Your task to perform on an android device: Search for "asus zenbook" on ebay, select the first entry, add it to the cart, then select checkout. Image 0: 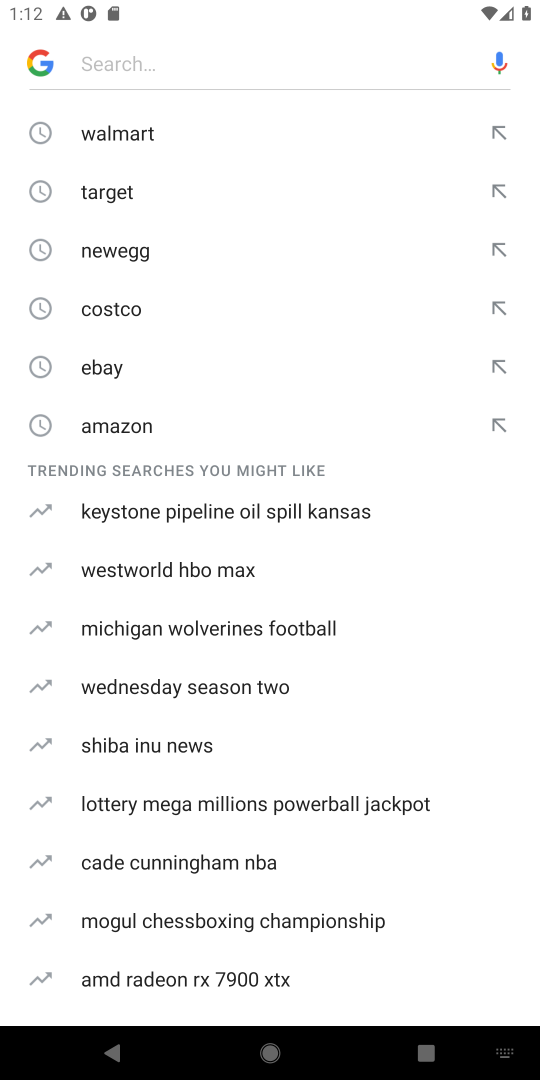
Step 0: click (71, 354)
Your task to perform on an android device: Search for "asus zenbook" on ebay, select the first entry, add it to the cart, then select checkout. Image 1: 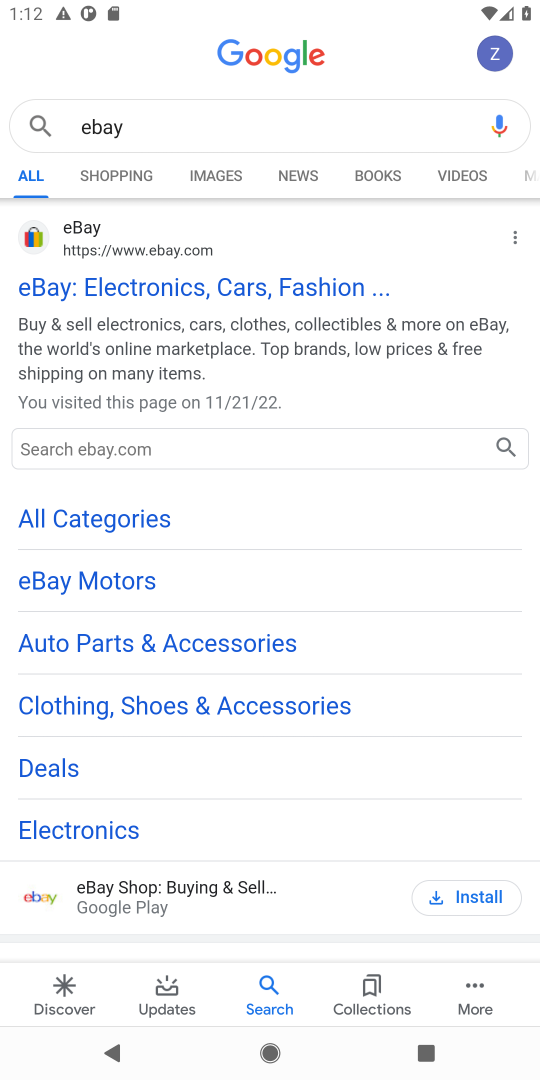
Step 1: click (112, 299)
Your task to perform on an android device: Search for "asus zenbook" on ebay, select the first entry, add it to the cart, then select checkout. Image 2: 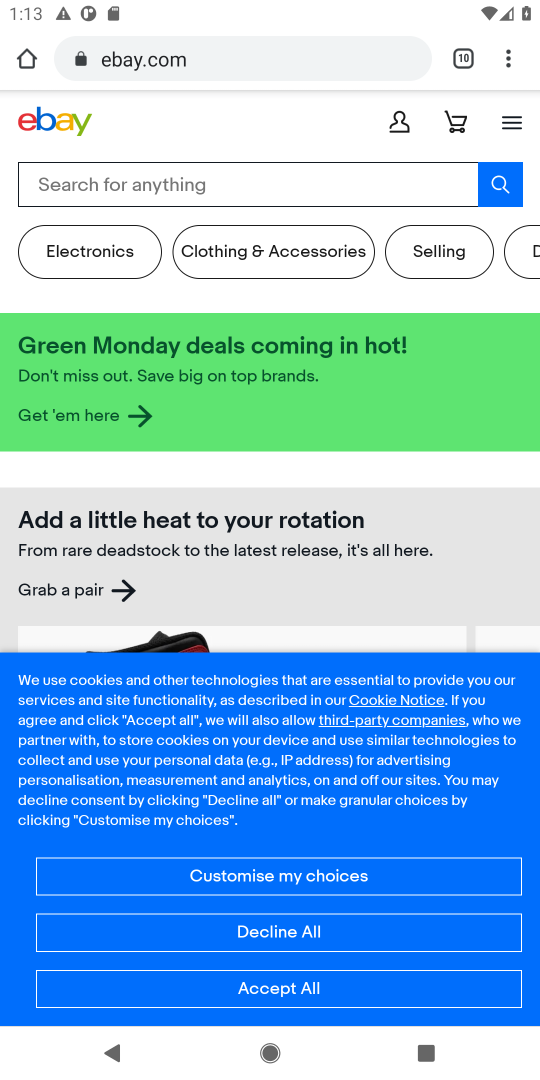
Step 2: click (266, 987)
Your task to perform on an android device: Search for "asus zenbook" on ebay, select the first entry, add it to the cart, then select checkout. Image 3: 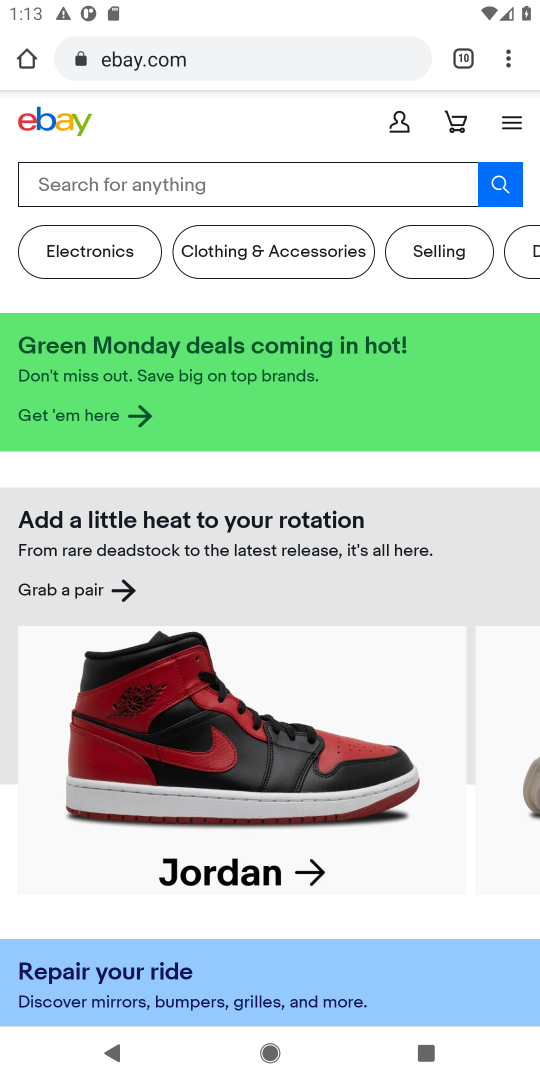
Step 3: click (298, 188)
Your task to perform on an android device: Search for "asus zenbook" on ebay, select the first entry, add it to the cart, then select checkout. Image 4: 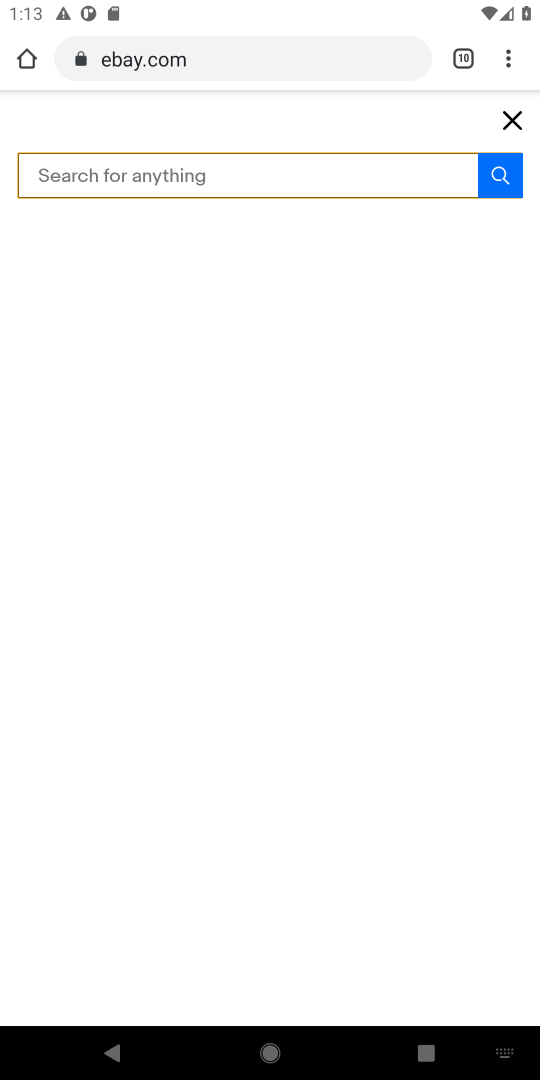
Step 4: type "asus zenbook"
Your task to perform on an android device: Search for "asus zenbook" on ebay, select the first entry, add it to the cart, then select checkout. Image 5: 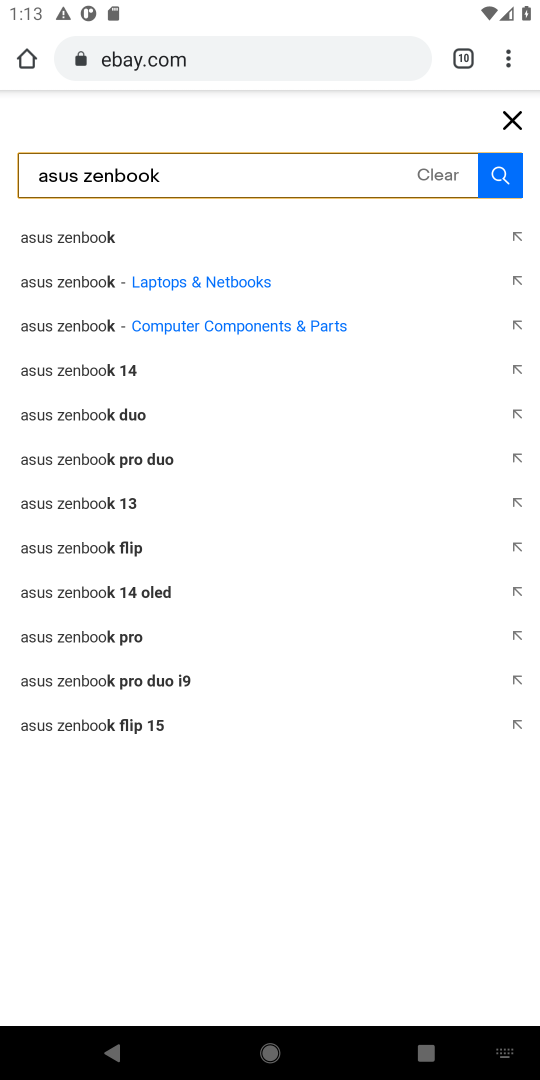
Step 5: click (109, 229)
Your task to perform on an android device: Search for "asus zenbook" on ebay, select the first entry, add it to the cart, then select checkout. Image 6: 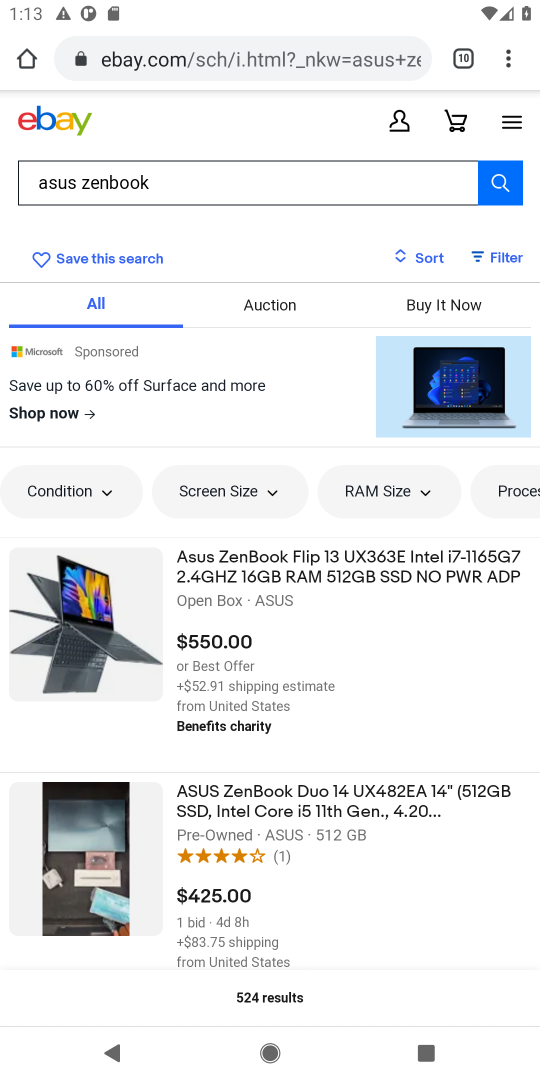
Step 6: click (280, 581)
Your task to perform on an android device: Search for "asus zenbook" on ebay, select the first entry, add it to the cart, then select checkout. Image 7: 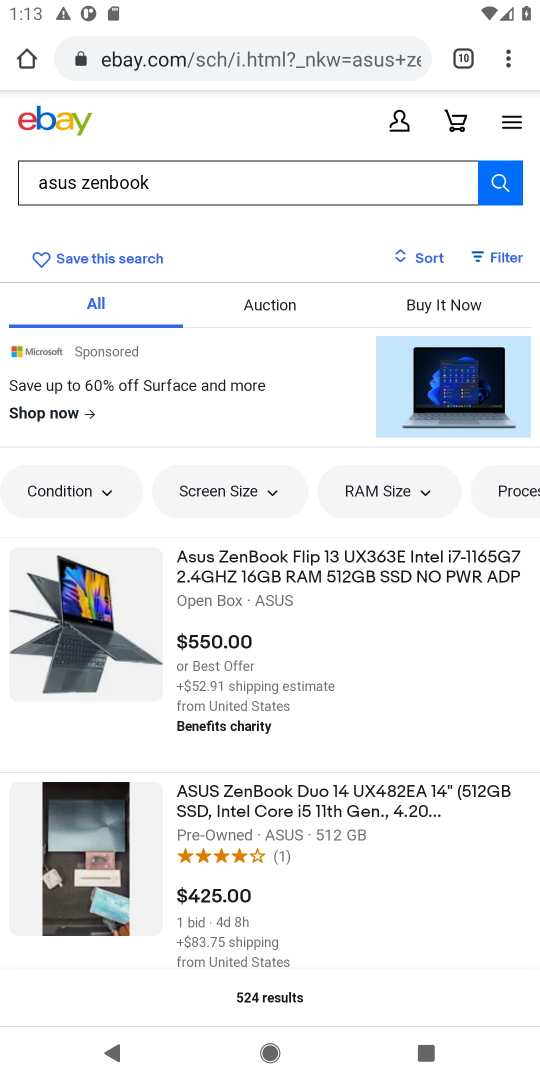
Step 7: click (280, 581)
Your task to perform on an android device: Search for "asus zenbook" on ebay, select the first entry, add it to the cart, then select checkout. Image 8: 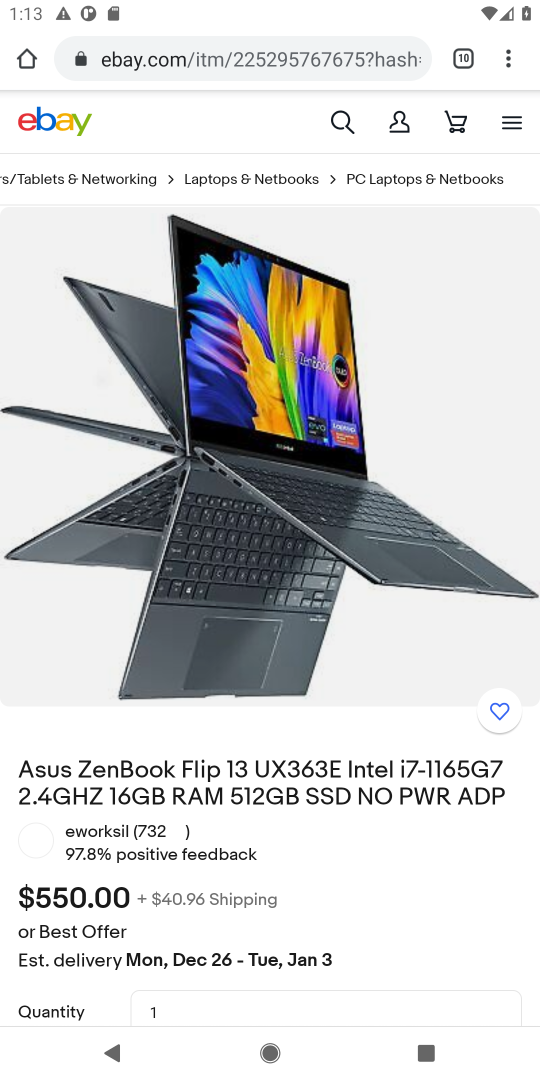
Step 8: drag from (203, 771) to (310, 282)
Your task to perform on an android device: Search for "asus zenbook" on ebay, select the first entry, add it to the cart, then select checkout. Image 9: 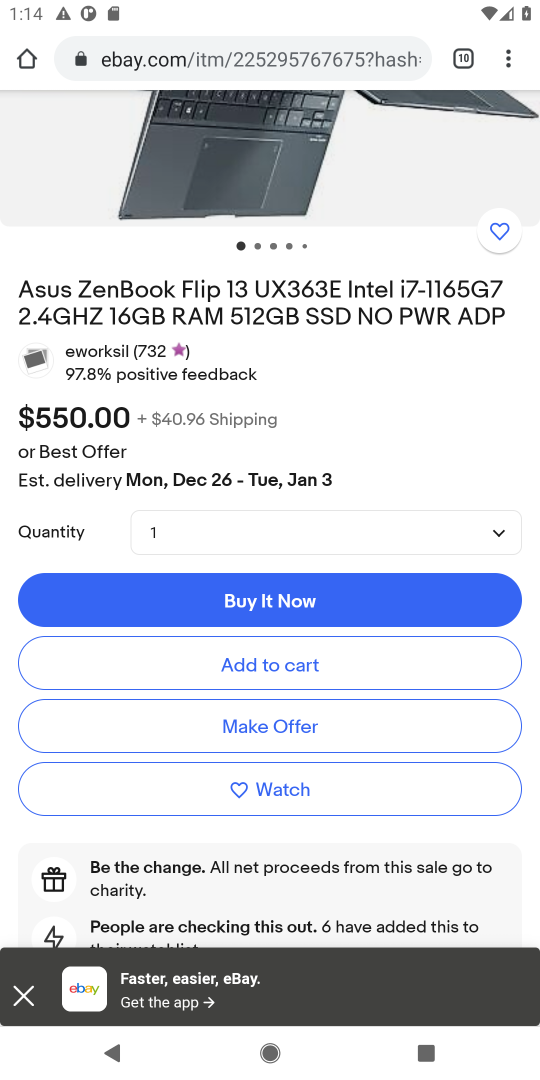
Step 9: click (183, 651)
Your task to perform on an android device: Search for "asus zenbook" on ebay, select the first entry, add it to the cart, then select checkout. Image 10: 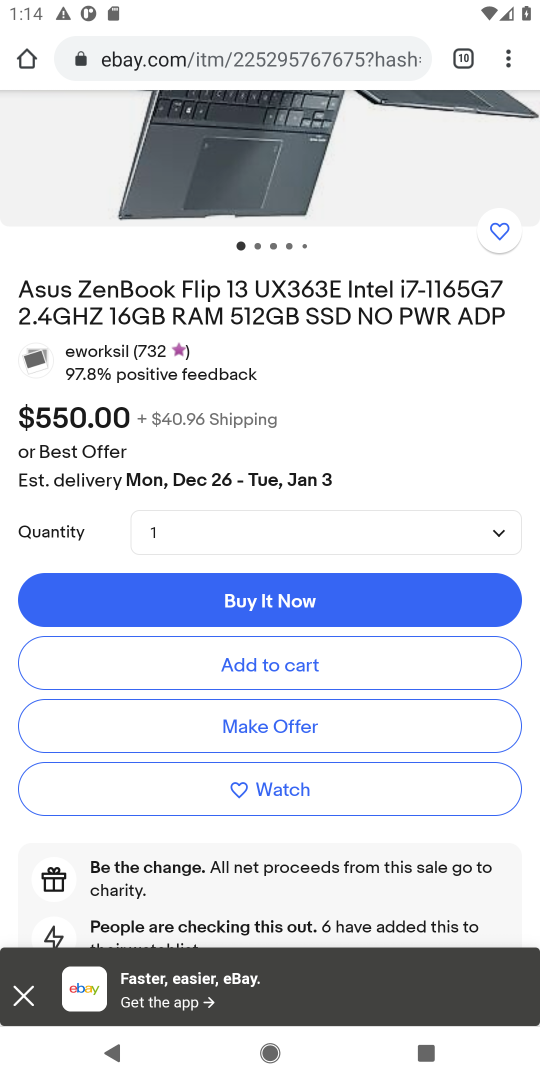
Step 10: task complete